Your task to perform on an android device: change timer sound Image 0: 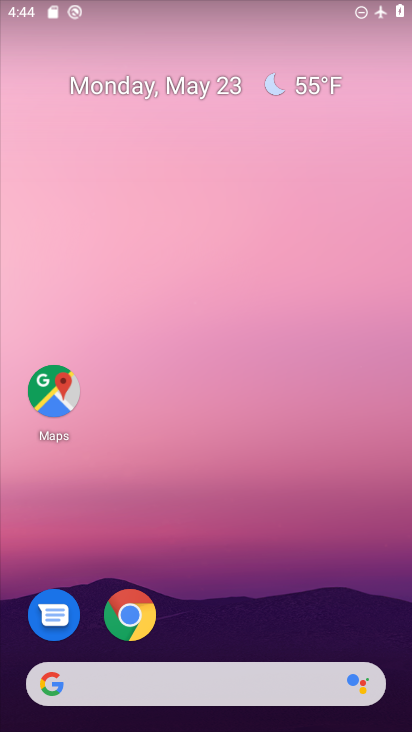
Step 0: drag from (373, 631) to (350, 60)
Your task to perform on an android device: change timer sound Image 1: 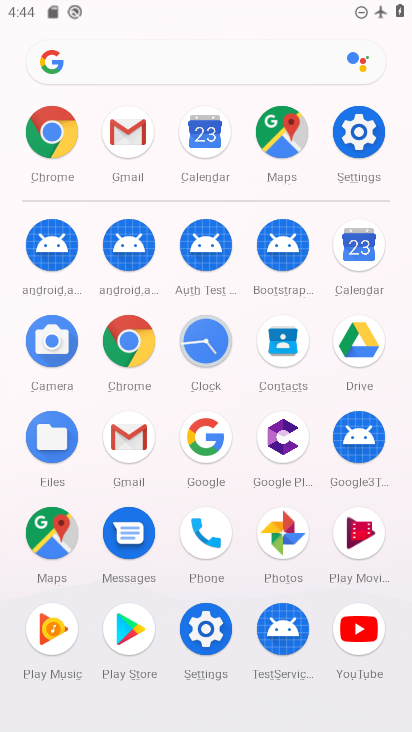
Step 1: click (211, 359)
Your task to perform on an android device: change timer sound Image 2: 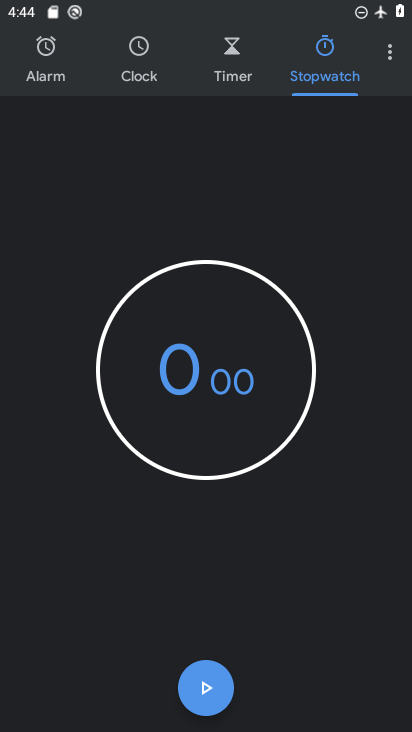
Step 2: click (388, 57)
Your task to perform on an android device: change timer sound Image 3: 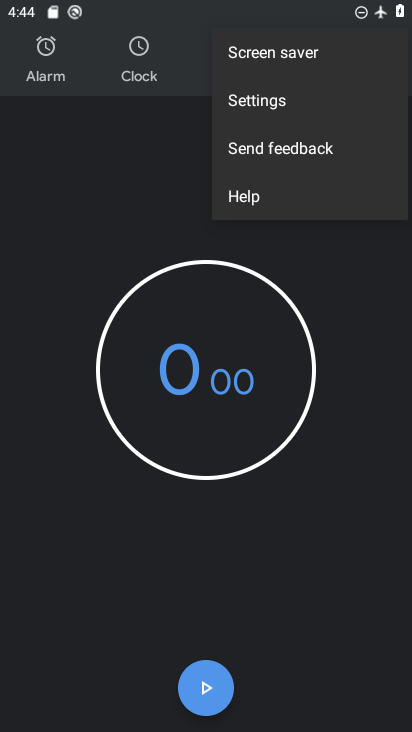
Step 3: click (295, 120)
Your task to perform on an android device: change timer sound Image 4: 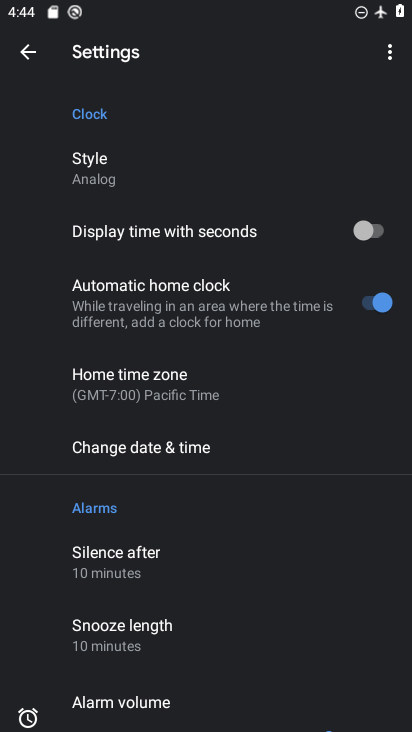
Step 4: drag from (317, 418) to (325, 360)
Your task to perform on an android device: change timer sound Image 5: 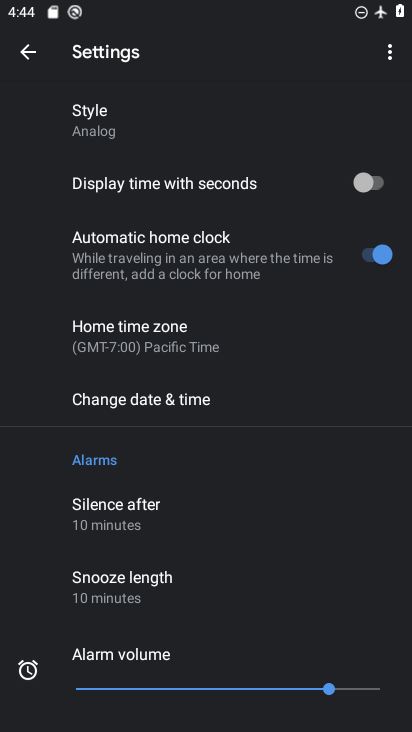
Step 5: drag from (331, 468) to (337, 390)
Your task to perform on an android device: change timer sound Image 6: 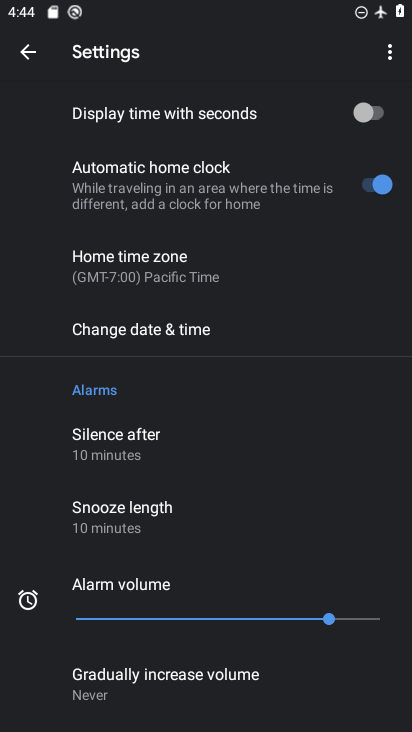
Step 6: drag from (323, 496) to (323, 404)
Your task to perform on an android device: change timer sound Image 7: 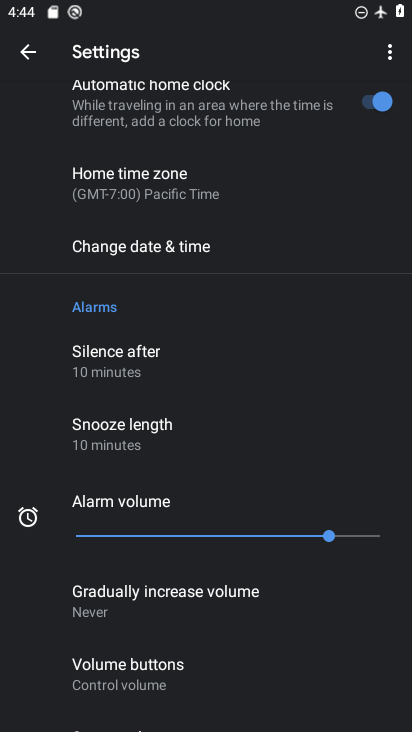
Step 7: drag from (324, 550) to (333, 454)
Your task to perform on an android device: change timer sound Image 8: 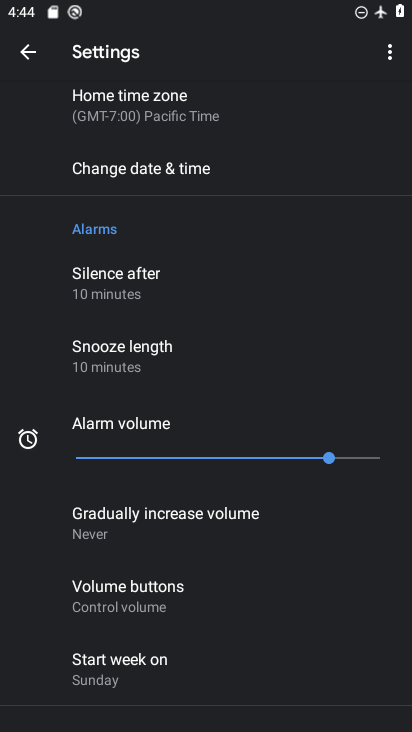
Step 8: drag from (329, 586) to (333, 454)
Your task to perform on an android device: change timer sound Image 9: 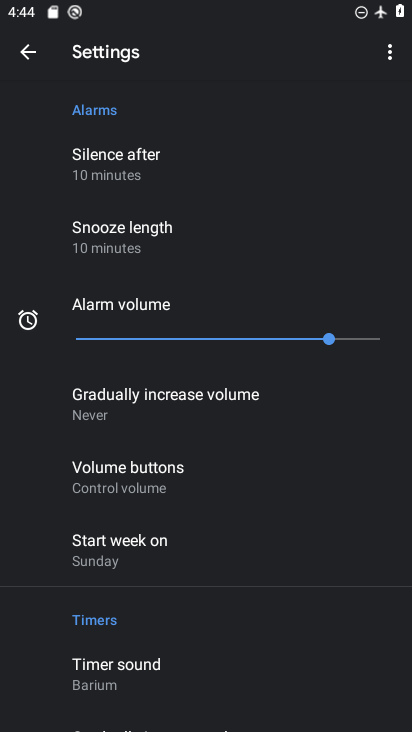
Step 9: drag from (319, 622) to (333, 506)
Your task to perform on an android device: change timer sound Image 10: 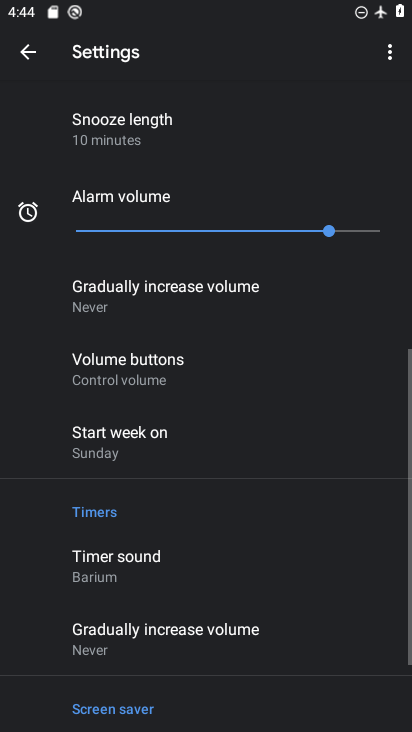
Step 10: drag from (332, 632) to (332, 510)
Your task to perform on an android device: change timer sound Image 11: 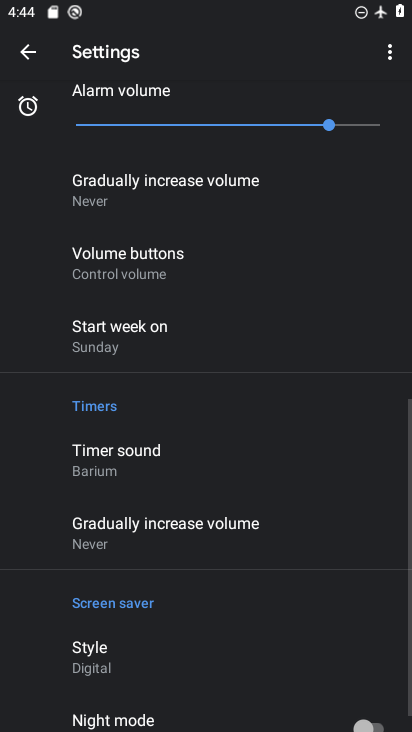
Step 11: drag from (325, 642) to (328, 529)
Your task to perform on an android device: change timer sound Image 12: 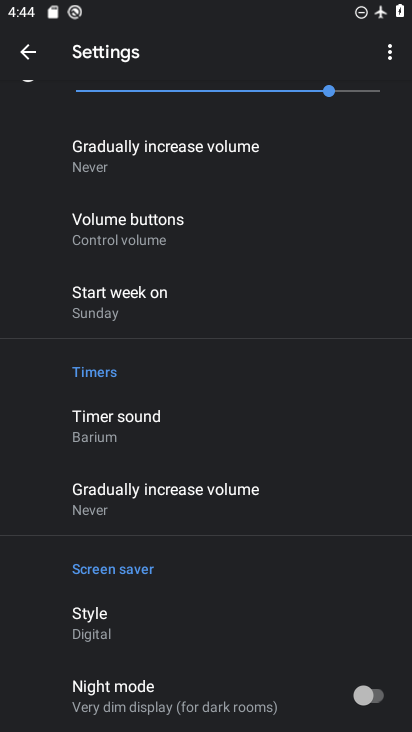
Step 12: drag from (299, 655) to (316, 491)
Your task to perform on an android device: change timer sound Image 13: 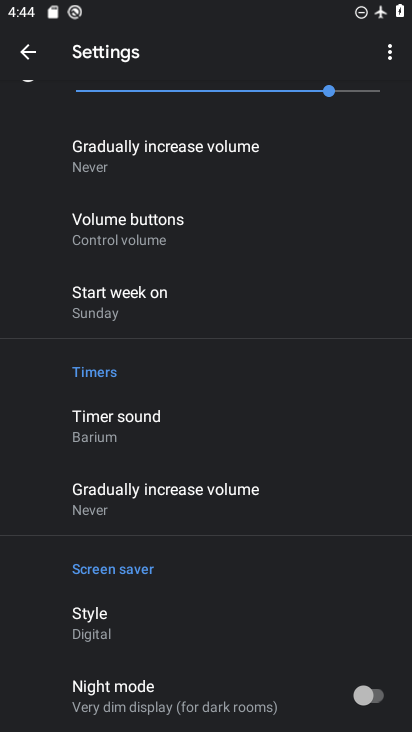
Step 13: drag from (318, 331) to (318, 535)
Your task to perform on an android device: change timer sound Image 14: 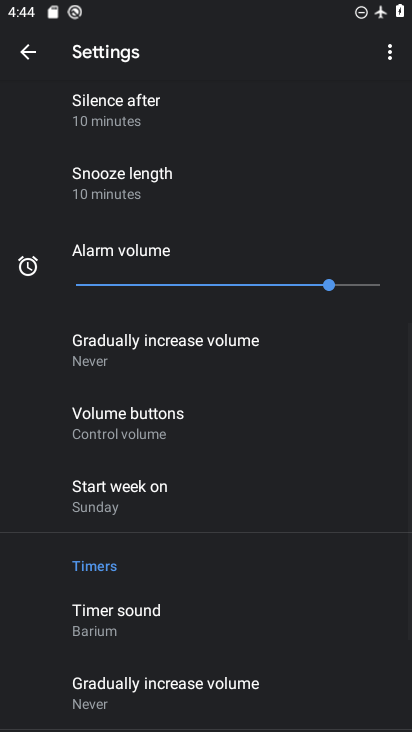
Step 14: drag from (330, 363) to (332, 517)
Your task to perform on an android device: change timer sound Image 15: 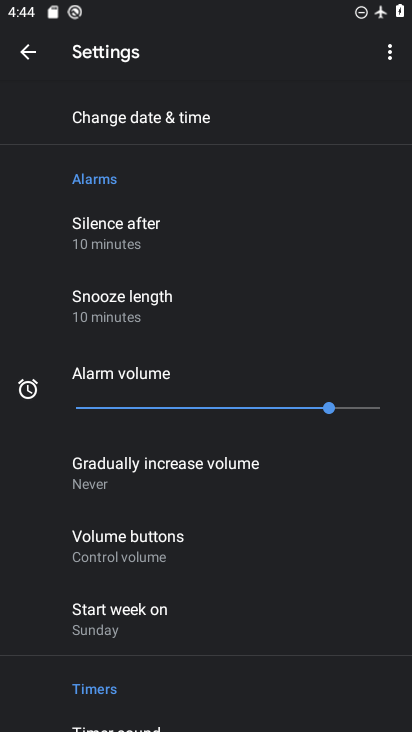
Step 15: drag from (238, 286) to (254, 447)
Your task to perform on an android device: change timer sound Image 16: 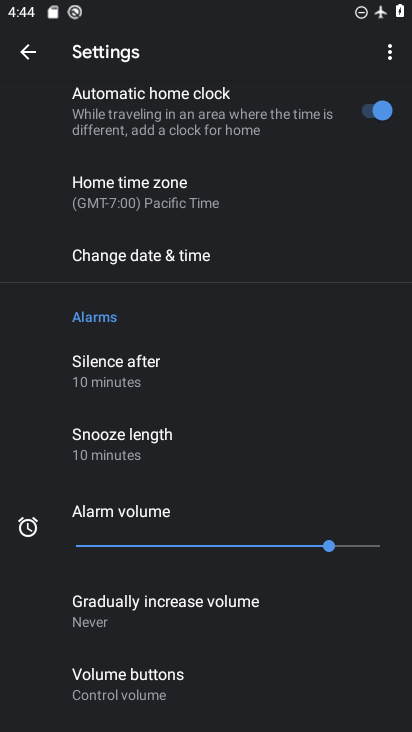
Step 16: drag from (289, 292) to (307, 457)
Your task to perform on an android device: change timer sound Image 17: 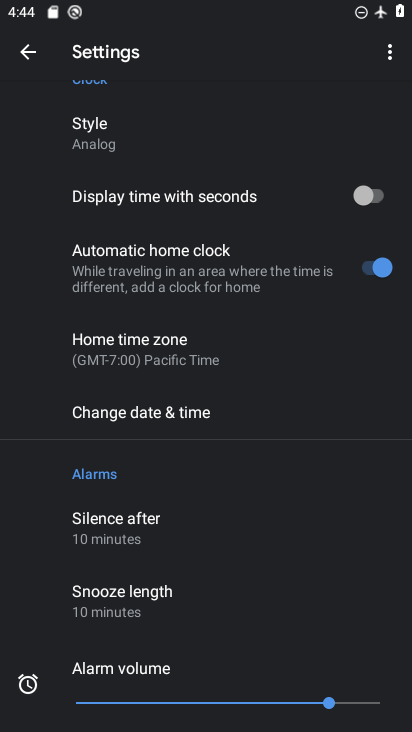
Step 17: drag from (297, 570) to (301, 441)
Your task to perform on an android device: change timer sound Image 18: 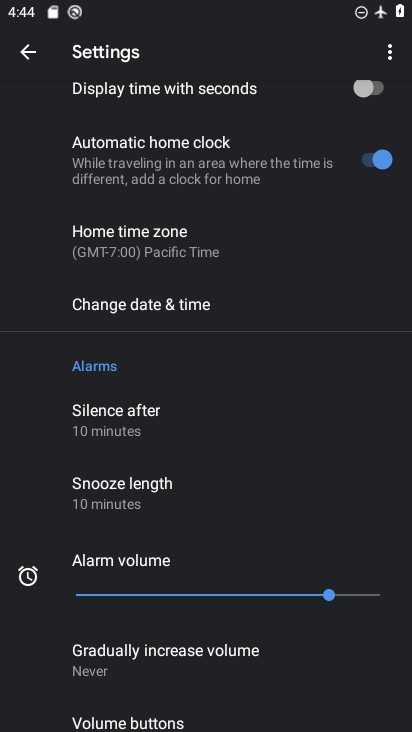
Step 18: drag from (310, 651) to (318, 464)
Your task to perform on an android device: change timer sound Image 19: 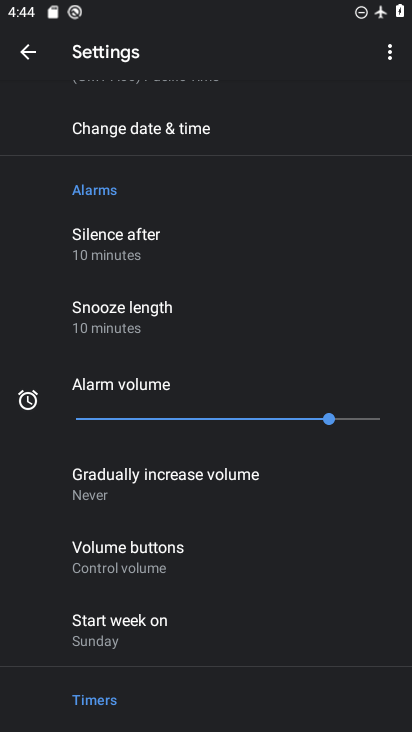
Step 19: drag from (300, 613) to (298, 459)
Your task to perform on an android device: change timer sound Image 20: 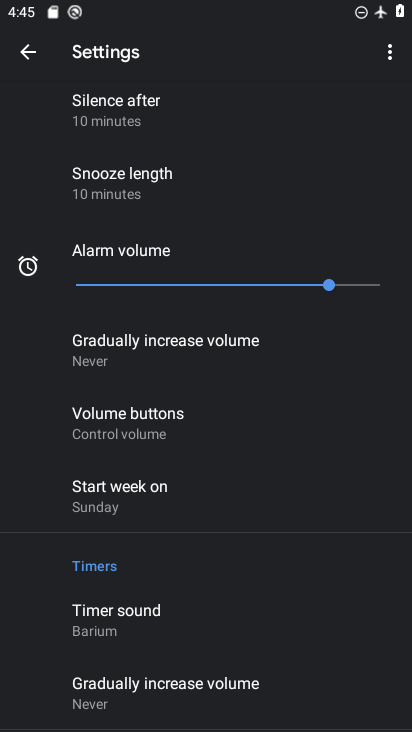
Step 20: click (134, 630)
Your task to perform on an android device: change timer sound Image 21: 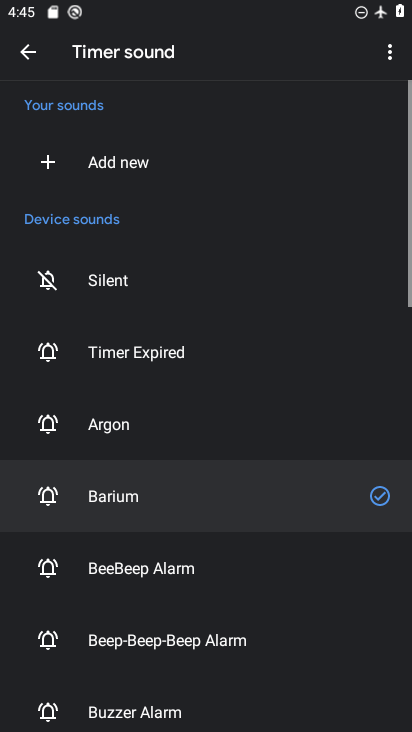
Step 21: click (182, 569)
Your task to perform on an android device: change timer sound Image 22: 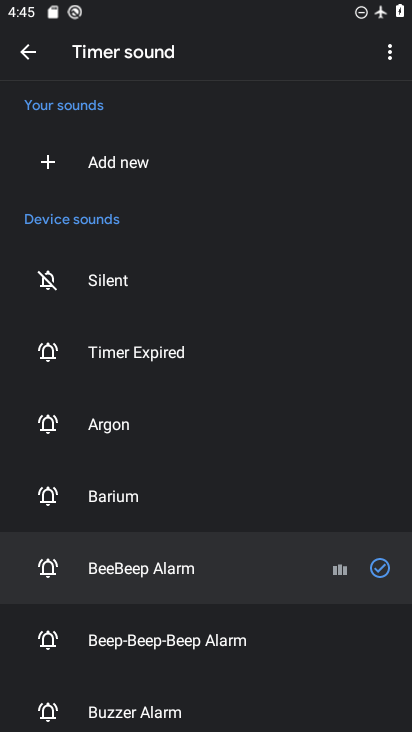
Step 22: task complete